Your task to perform on an android device: turn on the 12-hour format for clock Image 0: 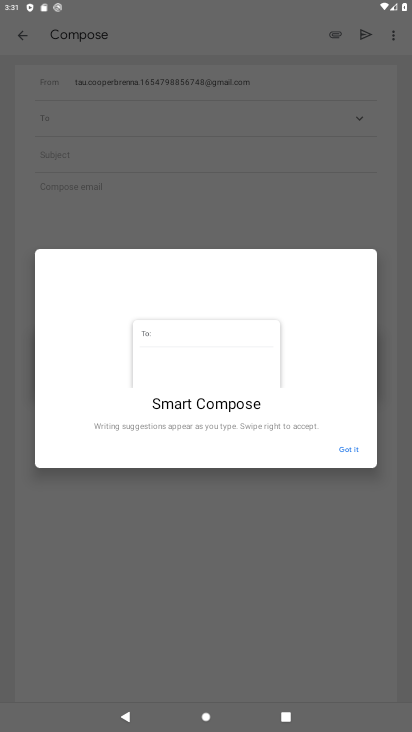
Step 0: press home button
Your task to perform on an android device: turn on the 12-hour format for clock Image 1: 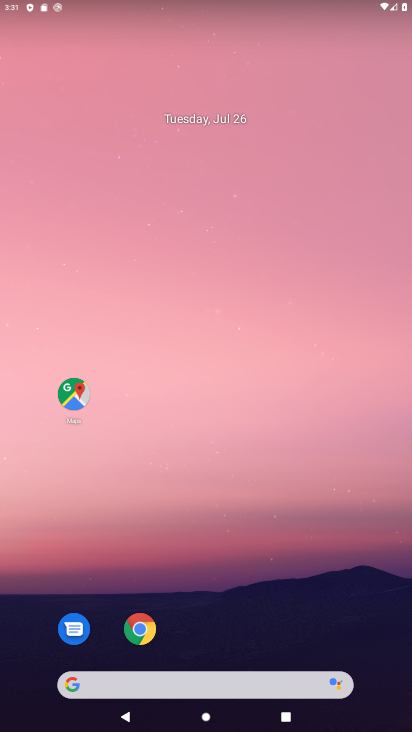
Step 1: drag from (257, 585) to (195, 179)
Your task to perform on an android device: turn on the 12-hour format for clock Image 2: 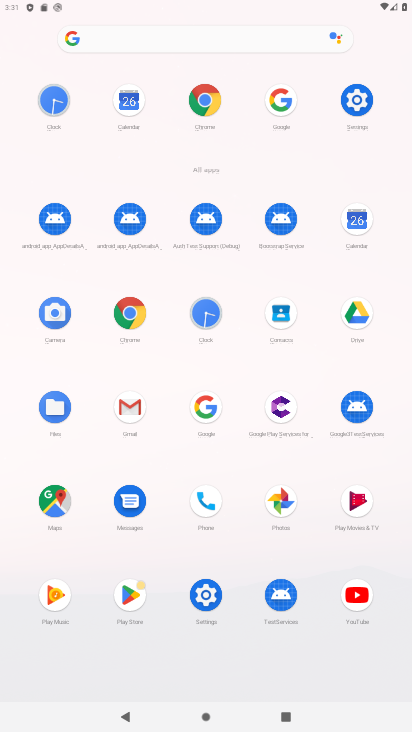
Step 2: click (207, 308)
Your task to perform on an android device: turn on the 12-hour format for clock Image 3: 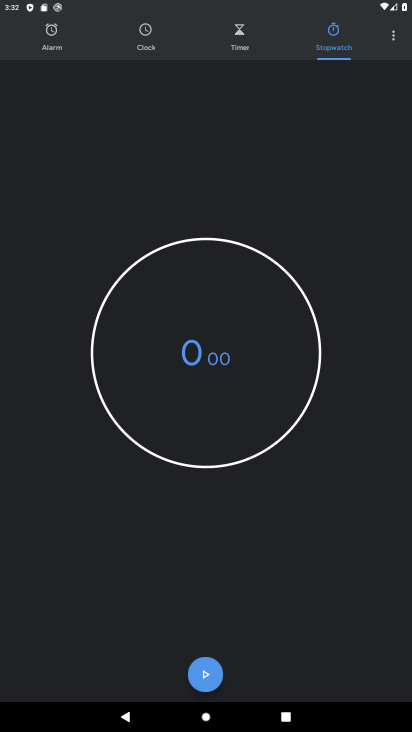
Step 3: click (400, 36)
Your task to perform on an android device: turn on the 12-hour format for clock Image 4: 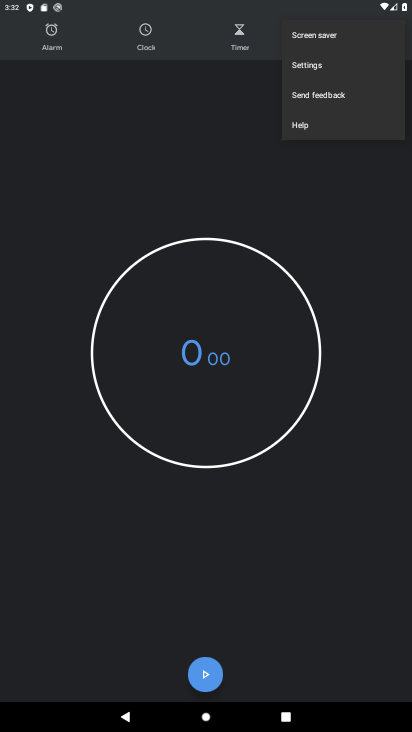
Step 4: click (325, 69)
Your task to perform on an android device: turn on the 12-hour format for clock Image 5: 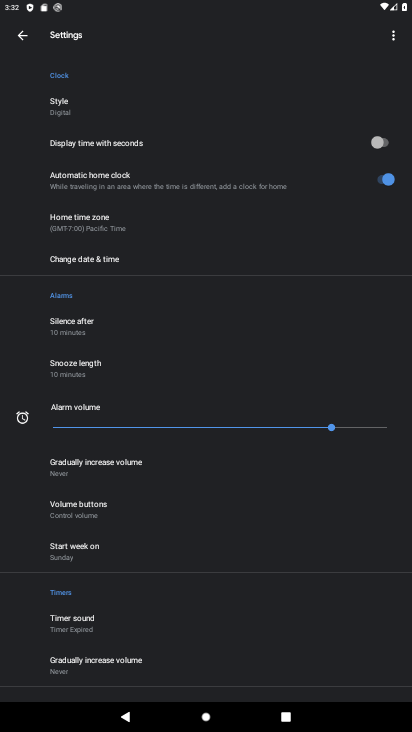
Step 5: click (104, 256)
Your task to perform on an android device: turn on the 12-hour format for clock Image 6: 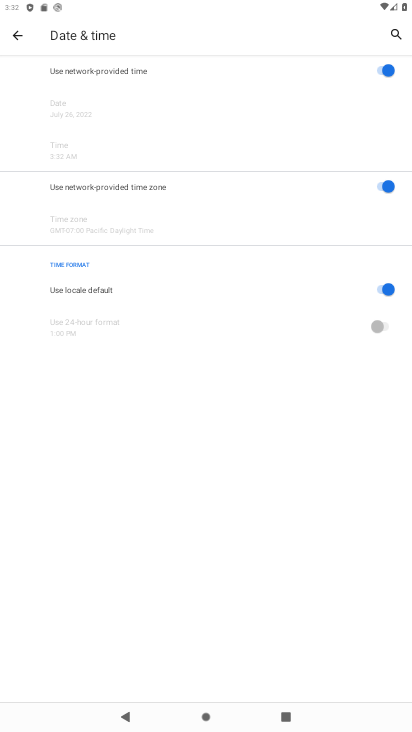
Step 6: task complete